Your task to perform on an android device: open wifi settings Image 0: 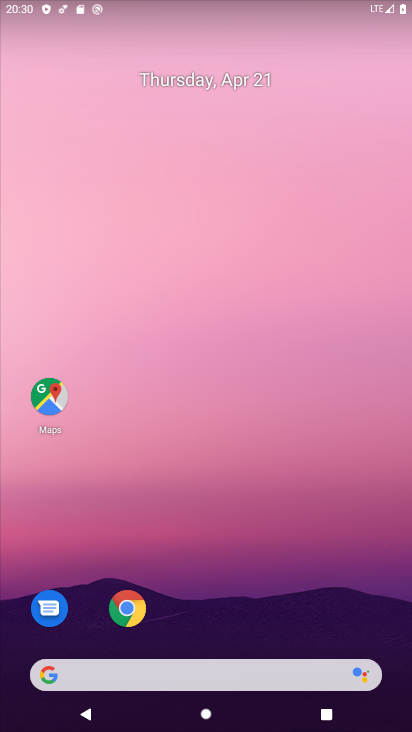
Step 0: drag from (249, 557) to (274, 258)
Your task to perform on an android device: open wifi settings Image 1: 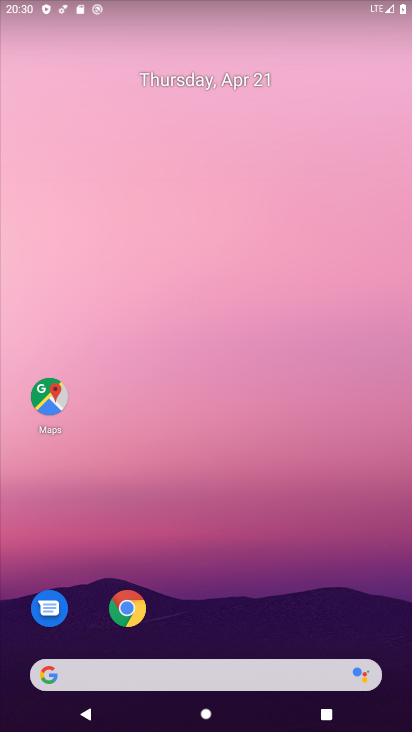
Step 1: drag from (196, 13) to (173, 645)
Your task to perform on an android device: open wifi settings Image 2: 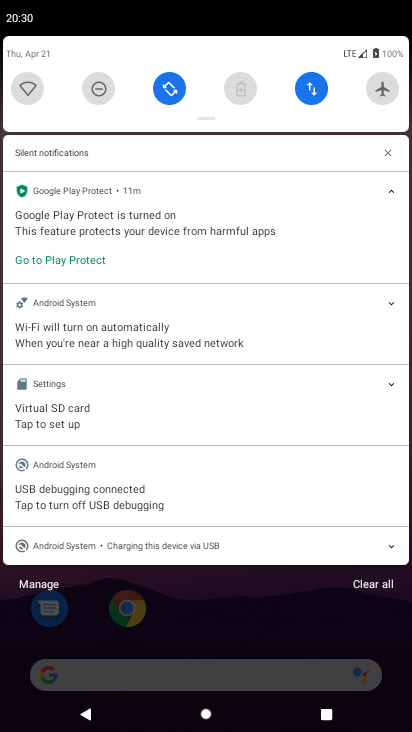
Step 2: click (35, 90)
Your task to perform on an android device: open wifi settings Image 3: 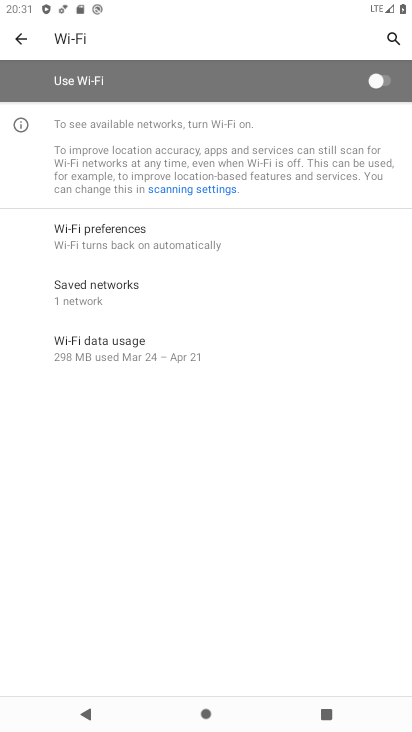
Step 3: task complete